Your task to perform on an android device: Open the web browser Image 0: 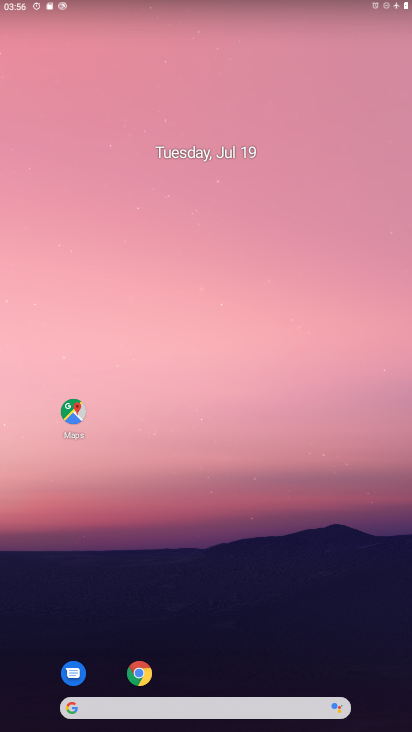
Step 0: drag from (220, 617) to (260, 49)
Your task to perform on an android device: Open the web browser Image 1: 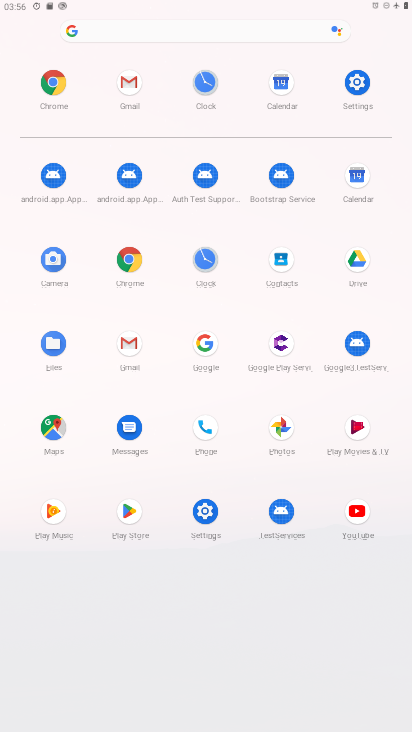
Step 1: click (122, 253)
Your task to perform on an android device: Open the web browser Image 2: 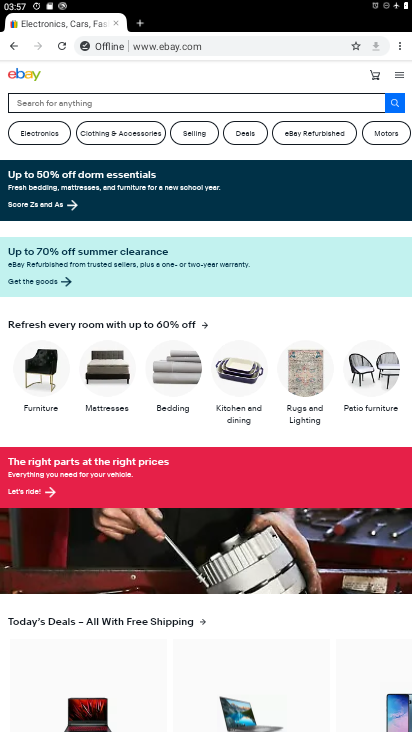
Step 2: task complete